Your task to perform on an android device: change keyboard looks Image 0: 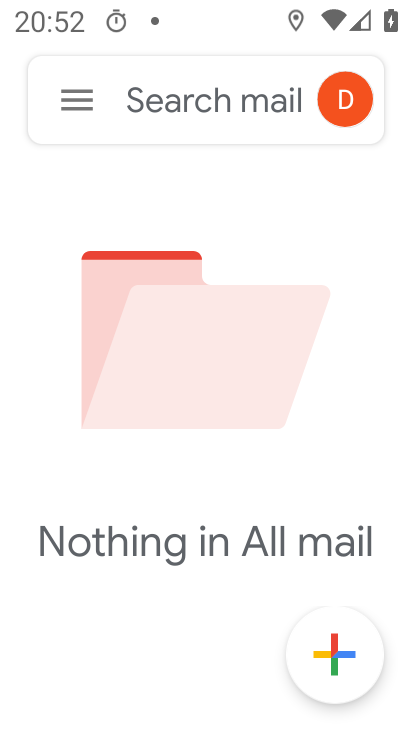
Step 0: press home button
Your task to perform on an android device: change keyboard looks Image 1: 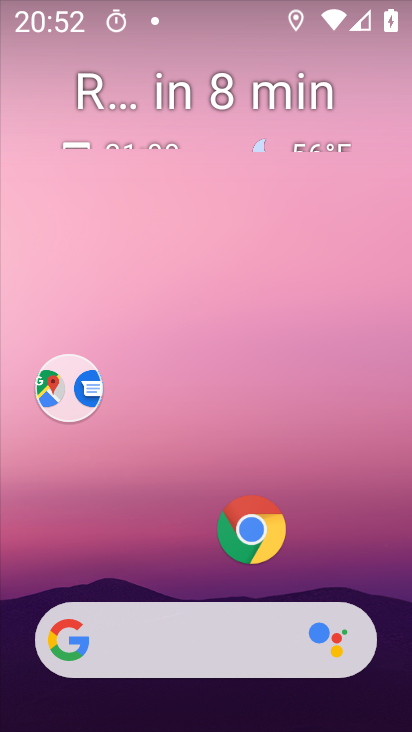
Step 1: drag from (190, 545) to (187, 96)
Your task to perform on an android device: change keyboard looks Image 2: 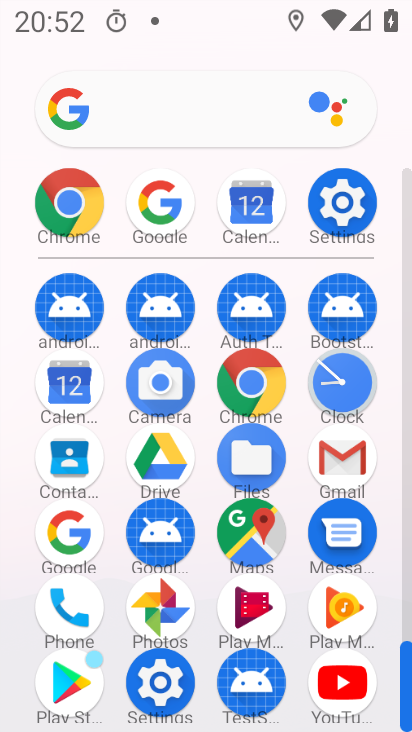
Step 2: click (343, 205)
Your task to perform on an android device: change keyboard looks Image 3: 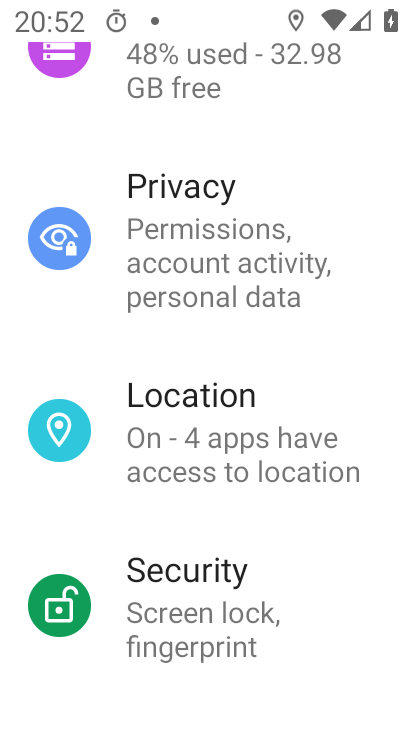
Step 3: drag from (257, 629) to (202, 81)
Your task to perform on an android device: change keyboard looks Image 4: 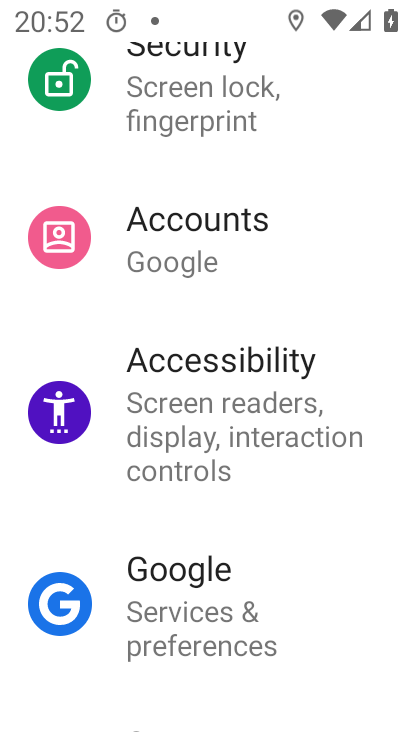
Step 4: drag from (200, 579) to (156, 79)
Your task to perform on an android device: change keyboard looks Image 5: 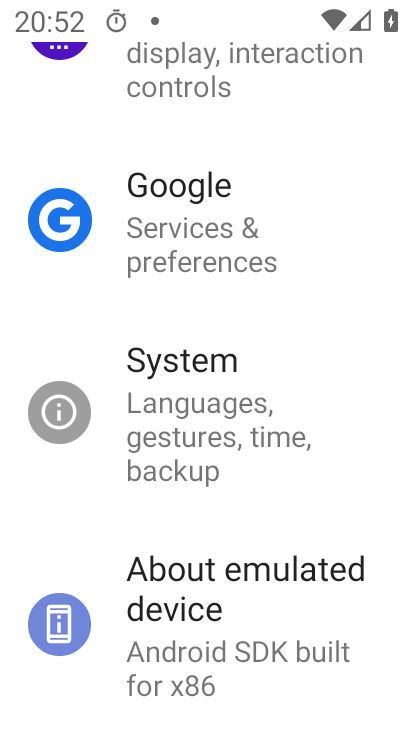
Step 5: click (157, 423)
Your task to perform on an android device: change keyboard looks Image 6: 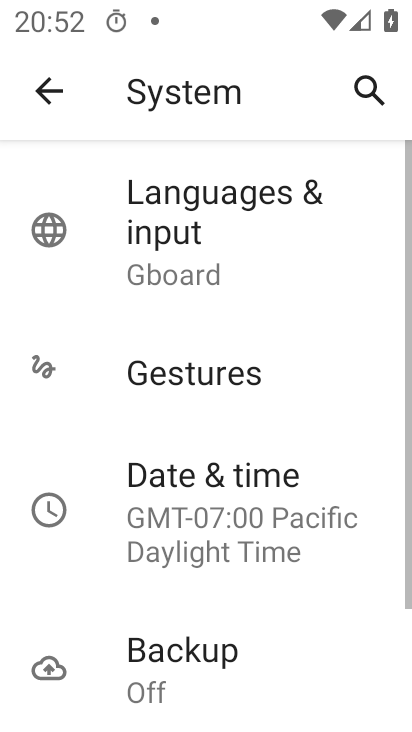
Step 6: drag from (199, 522) to (192, 407)
Your task to perform on an android device: change keyboard looks Image 7: 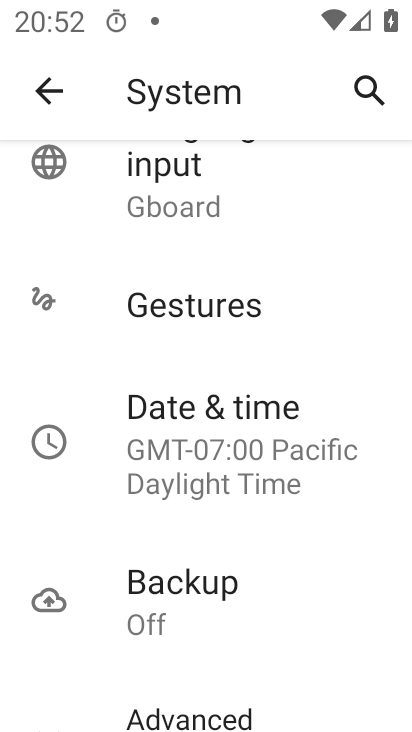
Step 7: click (211, 165)
Your task to perform on an android device: change keyboard looks Image 8: 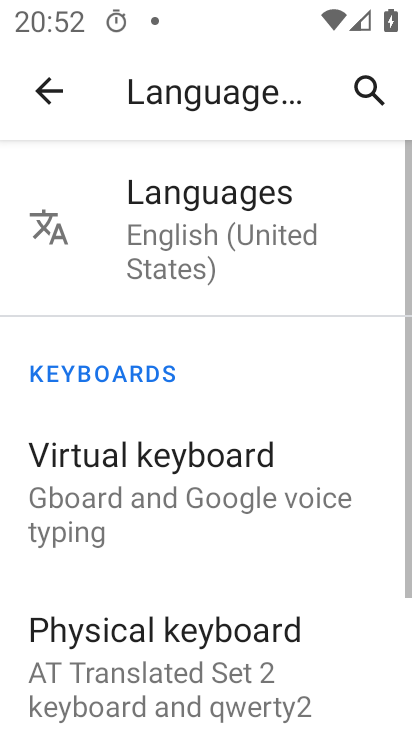
Step 8: drag from (213, 556) to (213, 484)
Your task to perform on an android device: change keyboard looks Image 9: 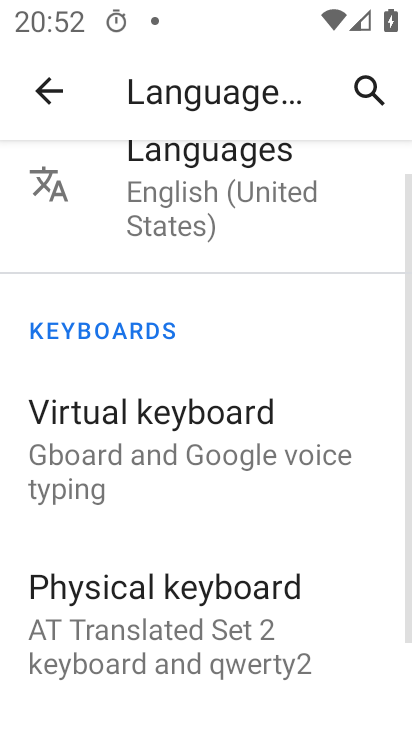
Step 9: click (165, 439)
Your task to perform on an android device: change keyboard looks Image 10: 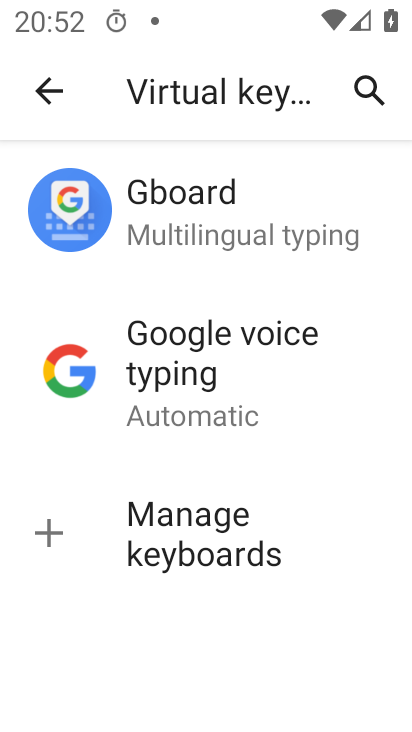
Step 10: click (177, 229)
Your task to perform on an android device: change keyboard looks Image 11: 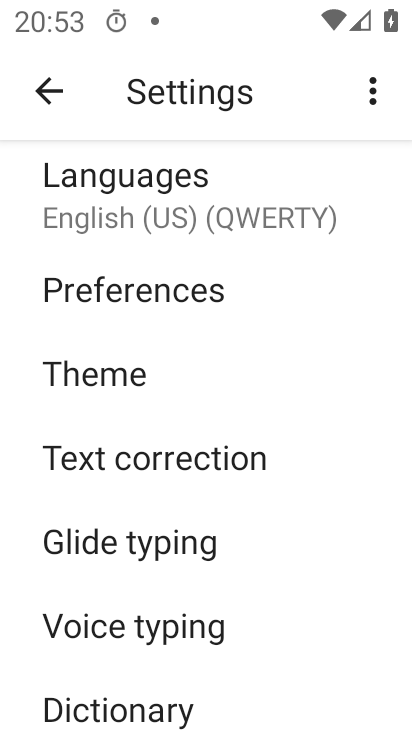
Step 11: click (136, 378)
Your task to perform on an android device: change keyboard looks Image 12: 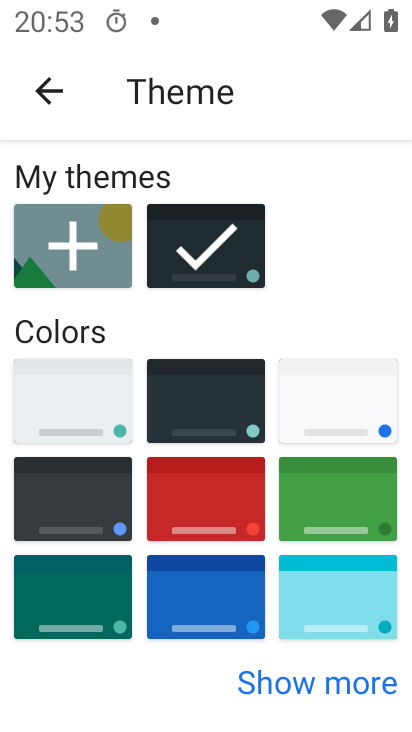
Step 12: click (186, 413)
Your task to perform on an android device: change keyboard looks Image 13: 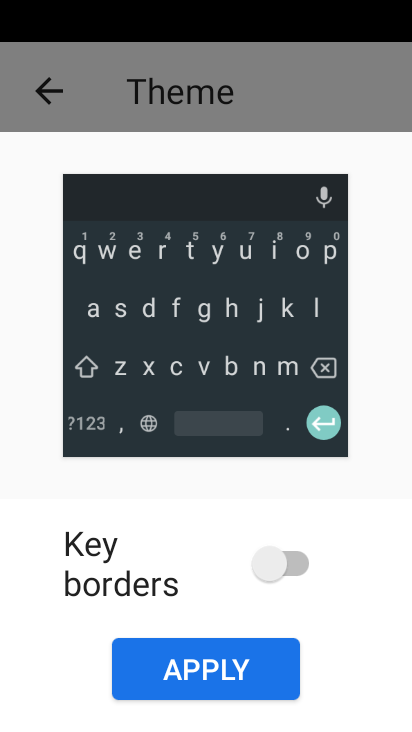
Step 13: click (198, 685)
Your task to perform on an android device: change keyboard looks Image 14: 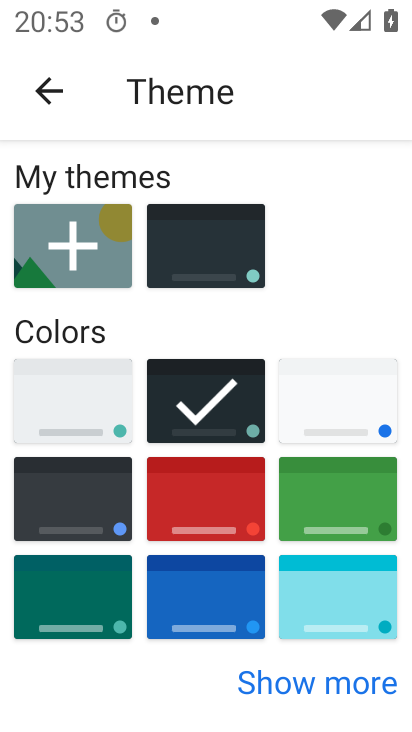
Step 14: task complete